Your task to perform on an android device: Open settings Image 0: 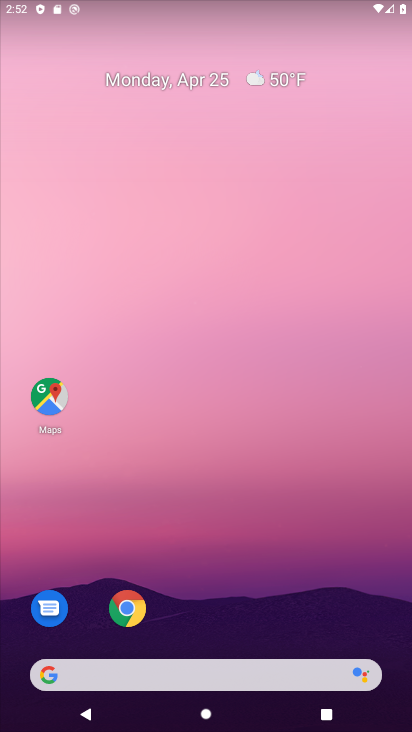
Step 0: drag from (206, 627) to (241, 232)
Your task to perform on an android device: Open settings Image 1: 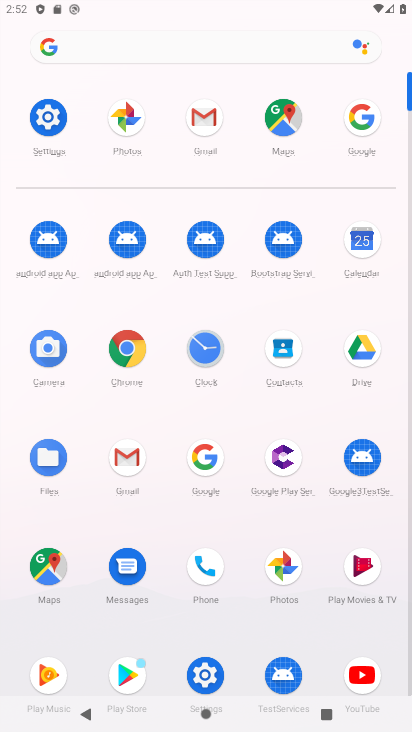
Step 1: click (39, 111)
Your task to perform on an android device: Open settings Image 2: 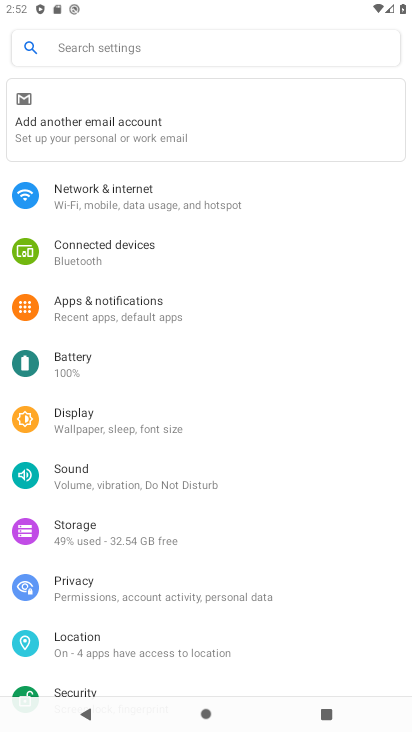
Step 2: task complete